Your task to perform on an android device: empty trash in google photos Image 0: 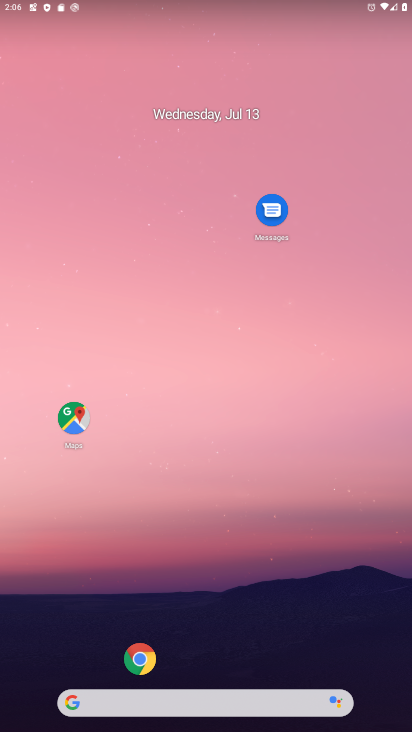
Step 0: drag from (58, 531) to (97, 236)
Your task to perform on an android device: empty trash in google photos Image 1: 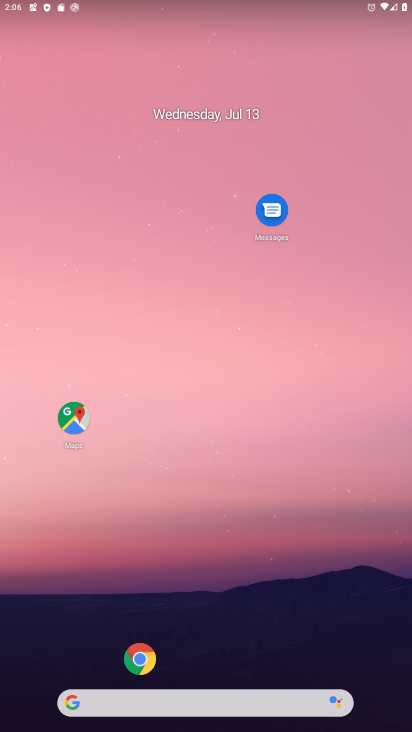
Step 1: drag from (96, 443) to (335, 42)
Your task to perform on an android device: empty trash in google photos Image 2: 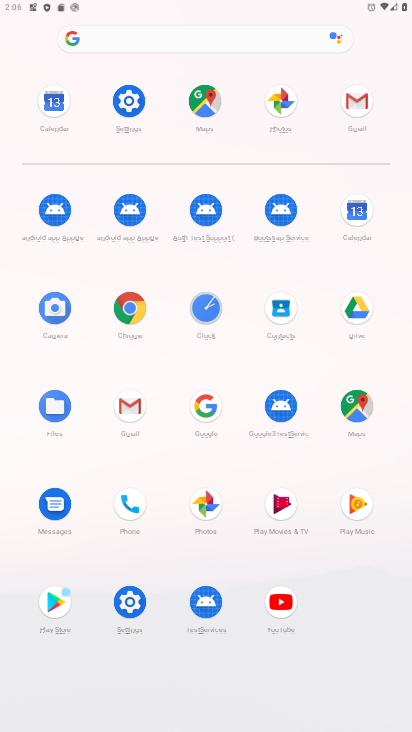
Step 2: click (199, 509)
Your task to perform on an android device: empty trash in google photos Image 3: 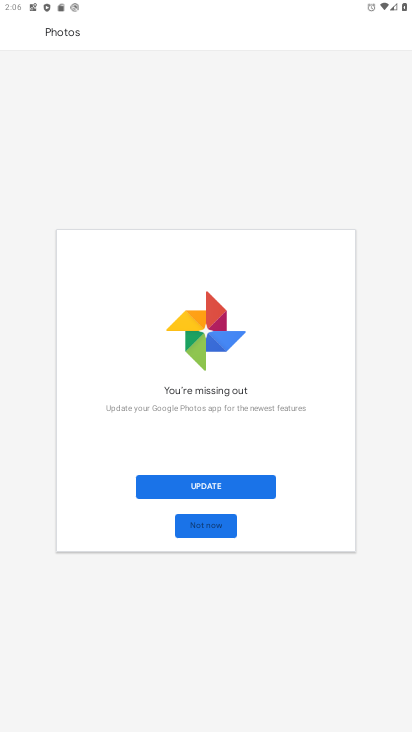
Step 3: click (193, 534)
Your task to perform on an android device: empty trash in google photos Image 4: 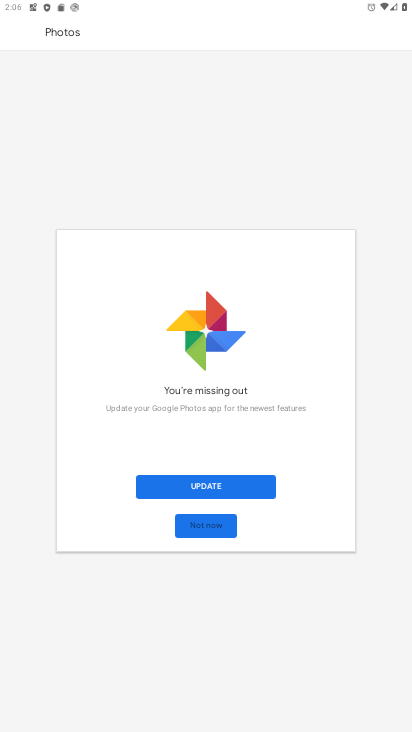
Step 4: click (193, 531)
Your task to perform on an android device: empty trash in google photos Image 5: 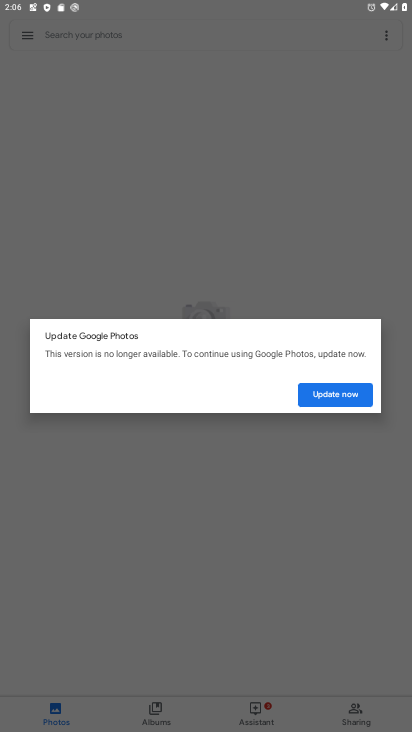
Step 5: click (328, 398)
Your task to perform on an android device: empty trash in google photos Image 6: 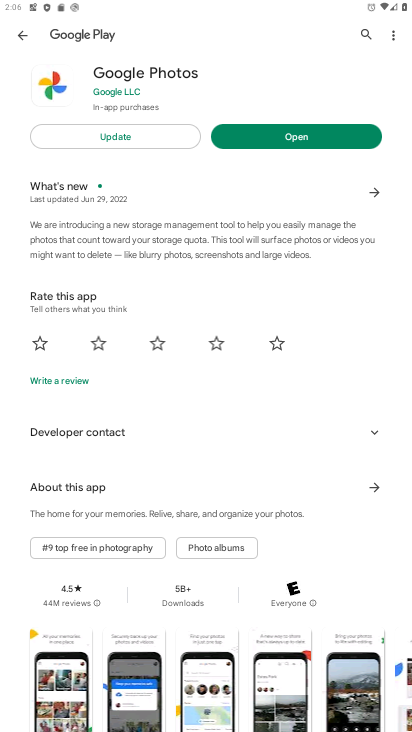
Step 6: click (319, 143)
Your task to perform on an android device: empty trash in google photos Image 7: 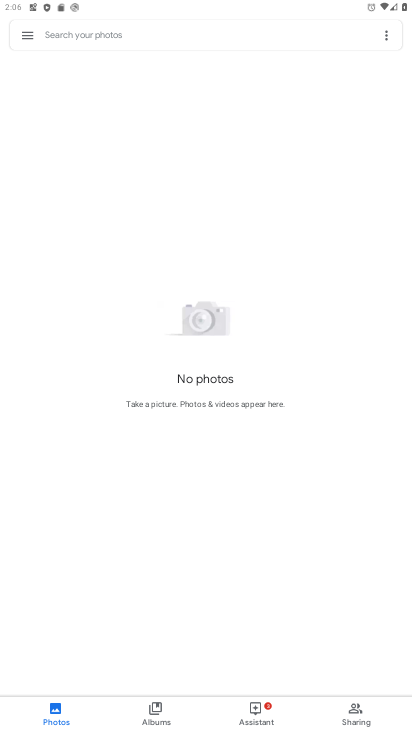
Step 7: click (28, 36)
Your task to perform on an android device: empty trash in google photos Image 8: 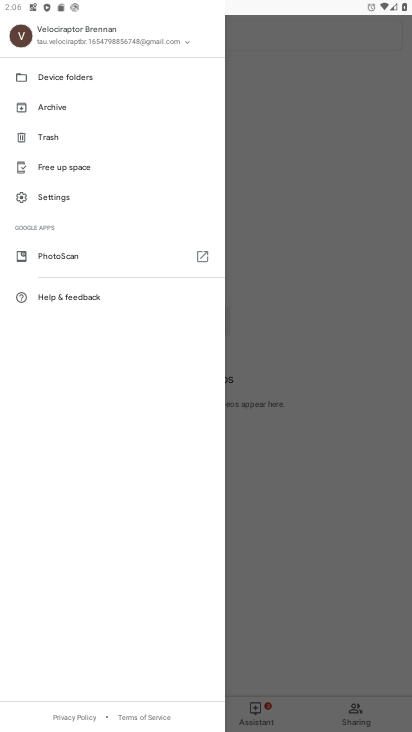
Step 8: click (50, 141)
Your task to perform on an android device: empty trash in google photos Image 9: 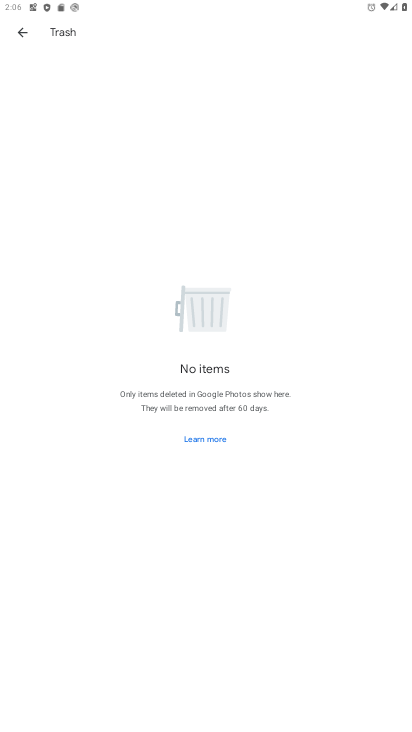
Step 9: task complete